Your task to perform on an android device: check data usage Image 0: 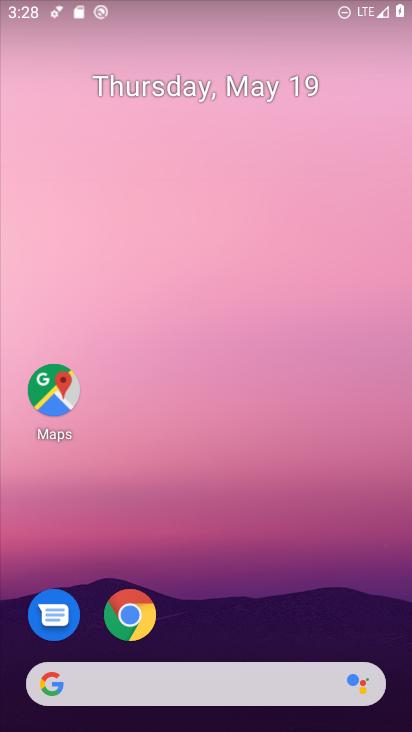
Step 0: drag from (278, 610) to (207, 75)
Your task to perform on an android device: check data usage Image 1: 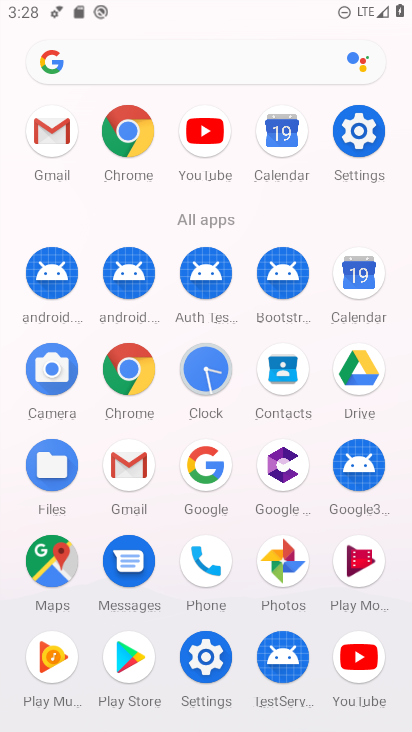
Step 1: click (360, 134)
Your task to perform on an android device: check data usage Image 2: 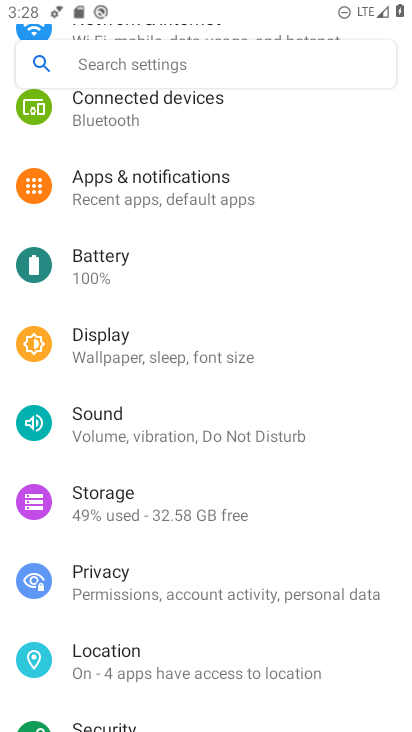
Step 2: drag from (300, 142) to (288, 658)
Your task to perform on an android device: check data usage Image 3: 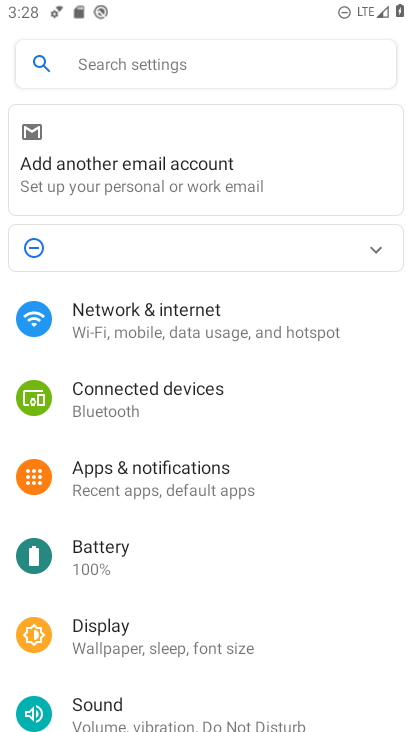
Step 3: click (249, 332)
Your task to perform on an android device: check data usage Image 4: 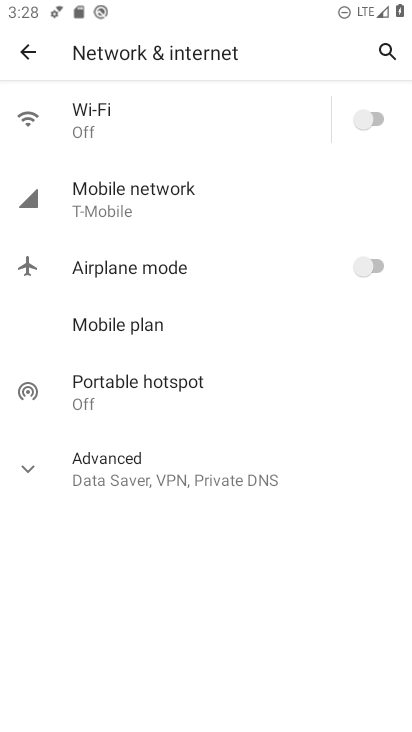
Step 4: click (175, 140)
Your task to perform on an android device: check data usage Image 5: 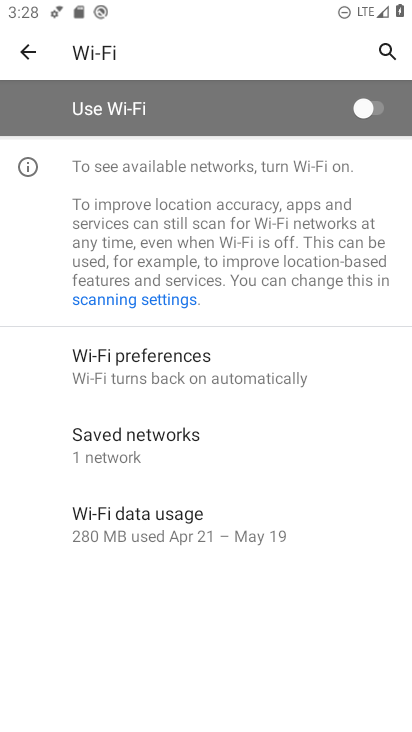
Step 5: click (189, 499)
Your task to perform on an android device: check data usage Image 6: 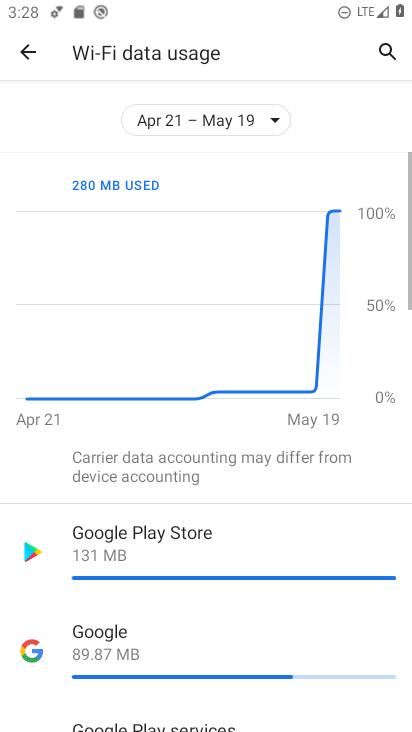
Step 6: task complete